Your task to perform on an android device: install app "McDonald's" Image 0: 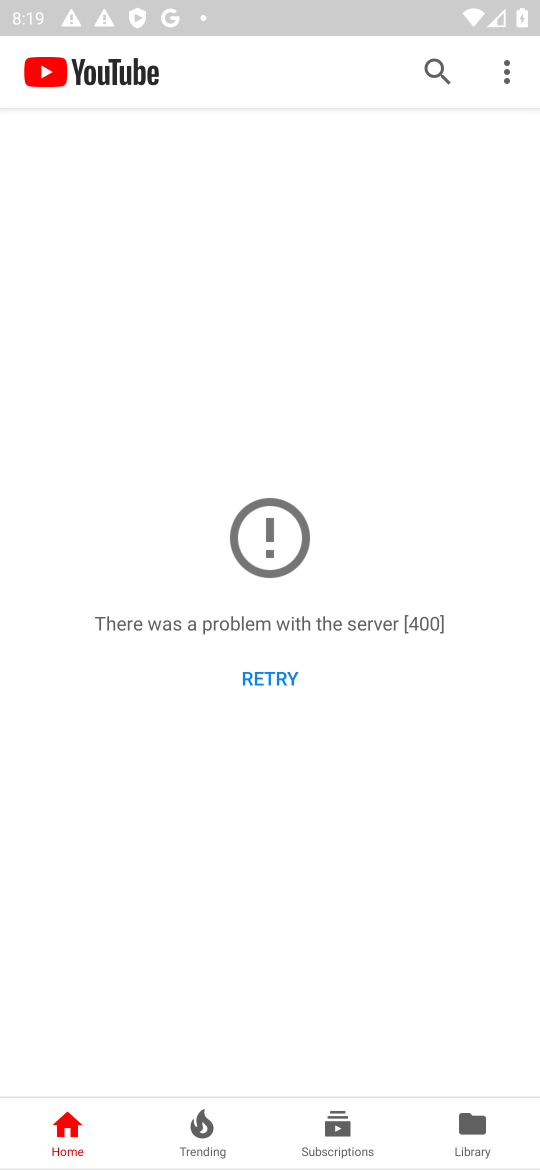
Step 0: press home button
Your task to perform on an android device: install app "McDonald's" Image 1: 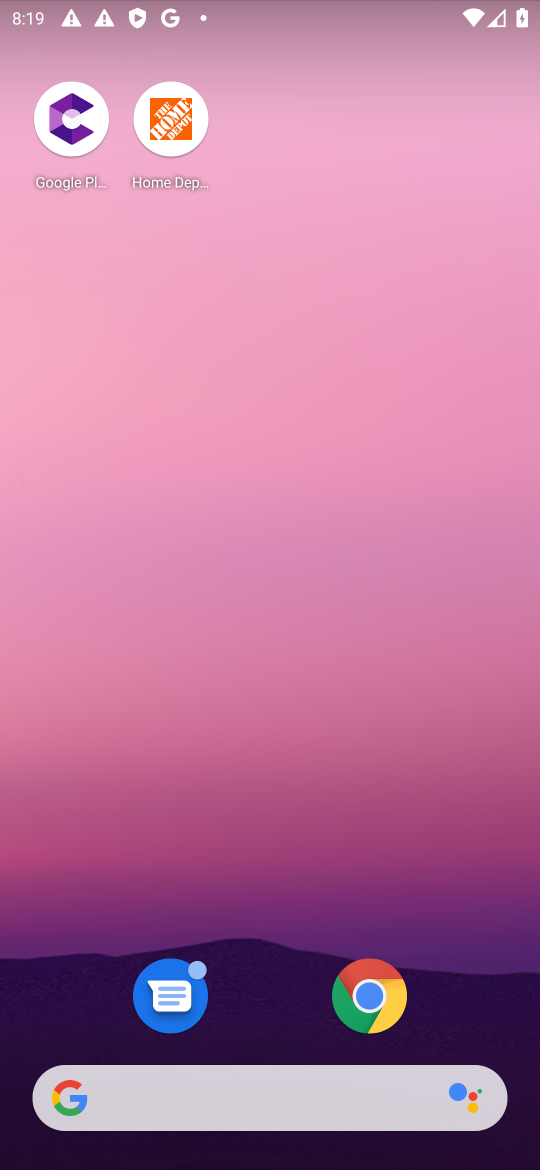
Step 1: drag from (459, 956) to (438, 193)
Your task to perform on an android device: install app "McDonald's" Image 2: 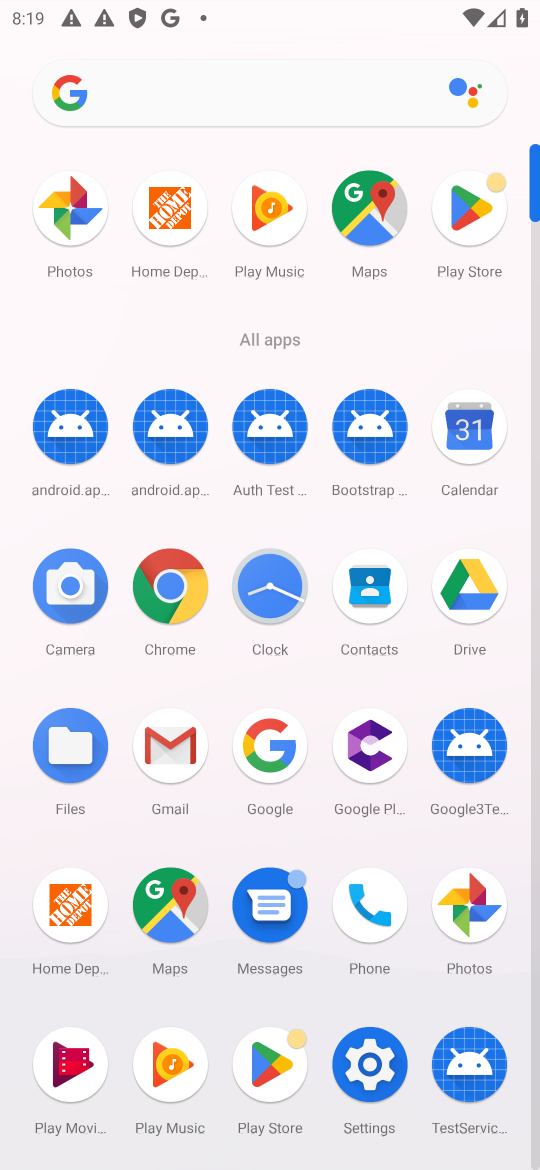
Step 2: click (263, 1075)
Your task to perform on an android device: install app "McDonald's" Image 3: 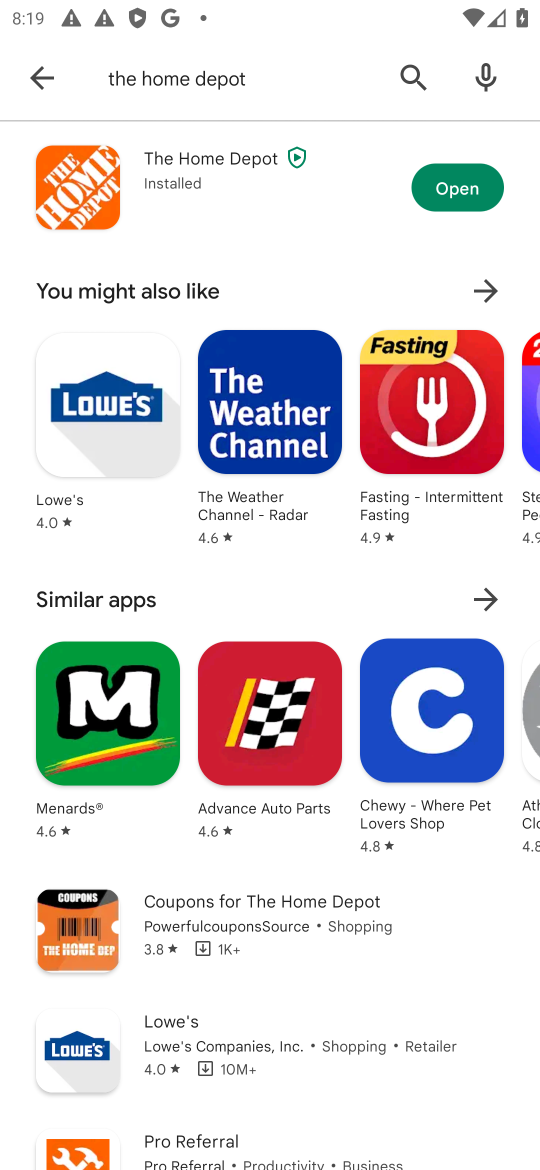
Step 3: press back button
Your task to perform on an android device: install app "McDonald's" Image 4: 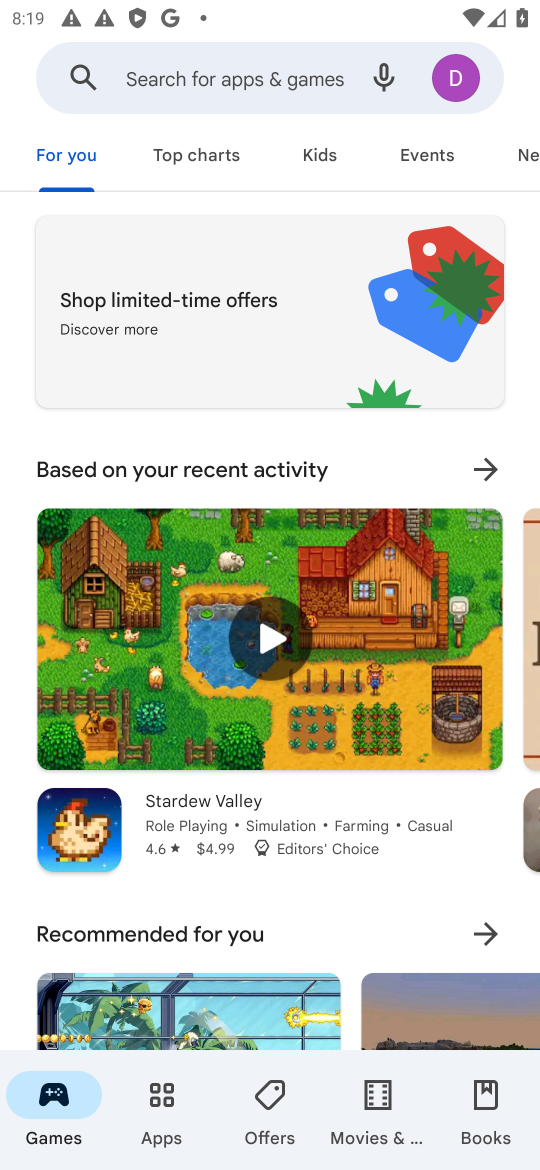
Step 4: click (227, 85)
Your task to perform on an android device: install app "McDonald's" Image 5: 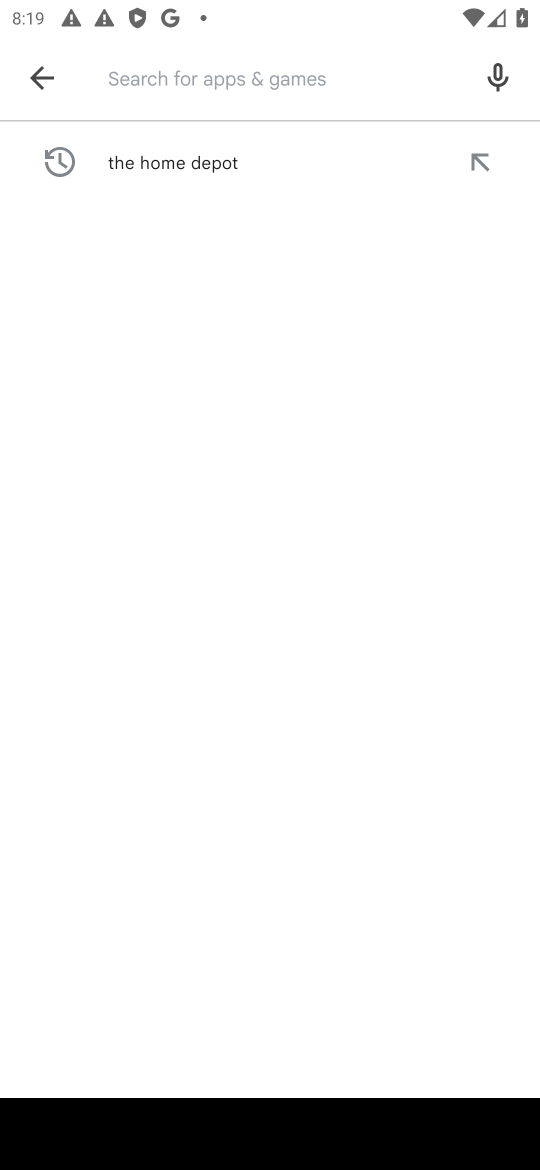
Step 5: type "mcdonalds"
Your task to perform on an android device: install app "McDonald's" Image 6: 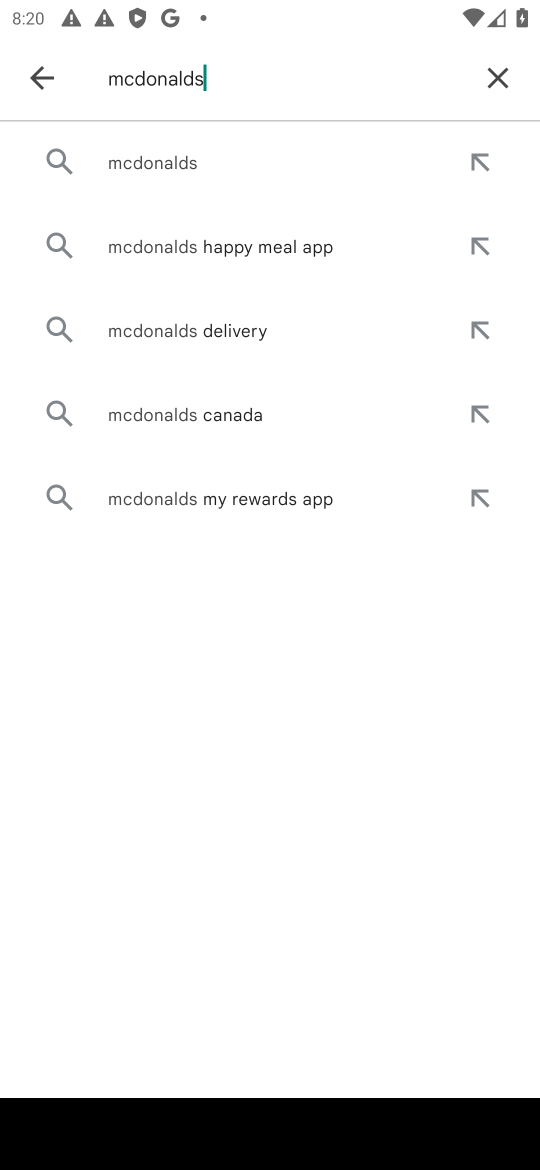
Step 6: click (234, 167)
Your task to perform on an android device: install app "McDonald's" Image 7: 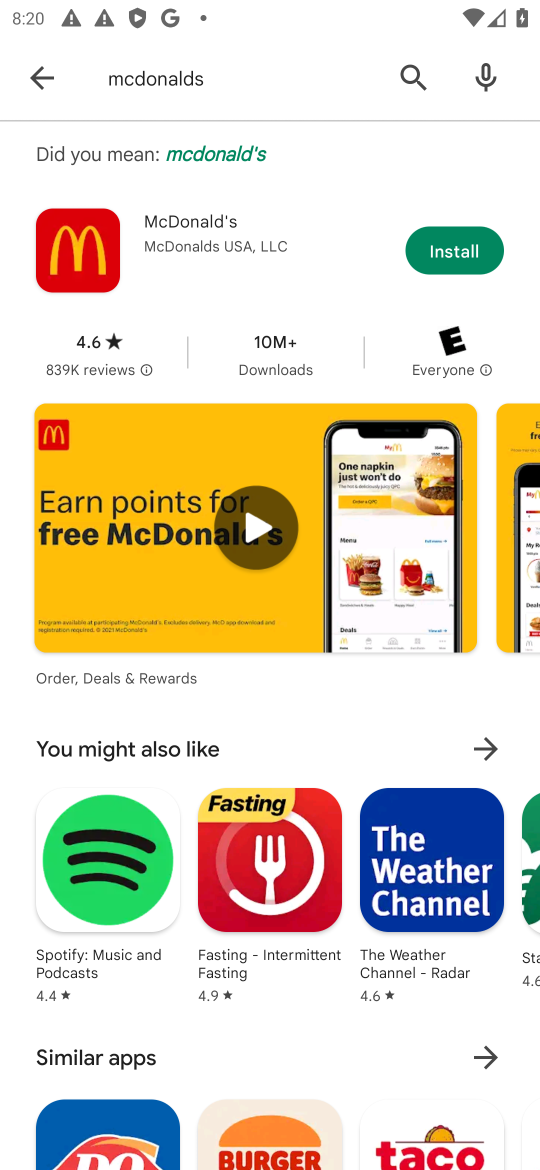
Step 7: click (454, 253)
Your task to perform on an android device: install app "McDonald's" Image 8: 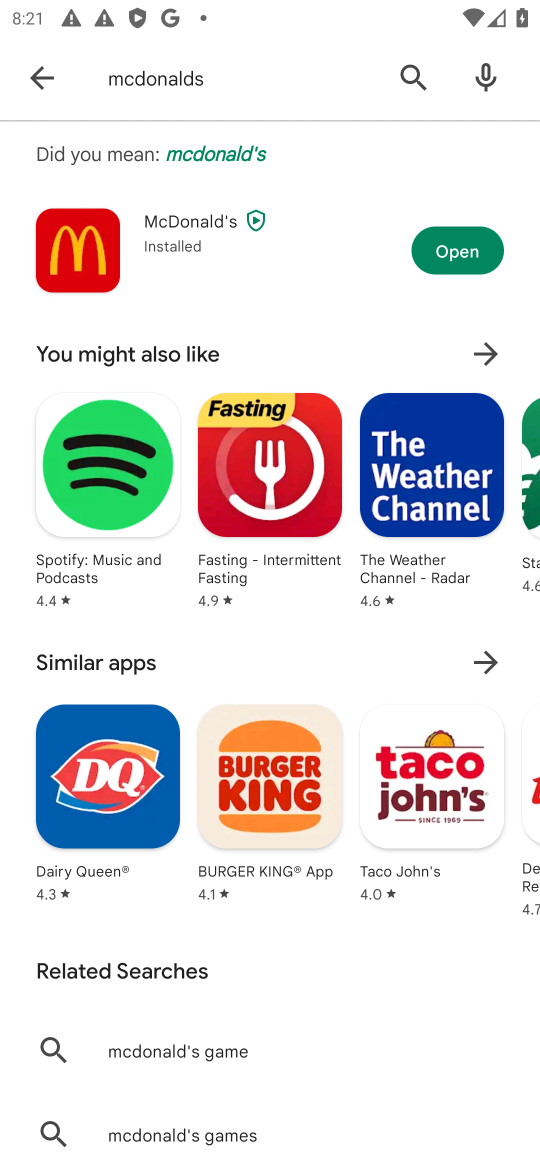
Step 8: task complete